Your task to perform on an android device: Open battery settings Image 0: 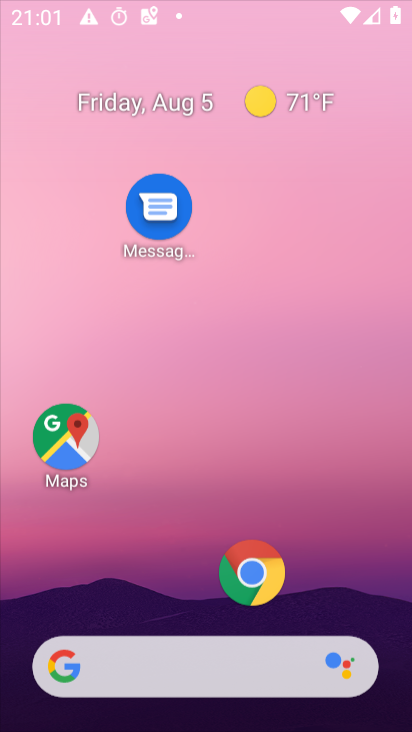
Step 0: press home button
Your task to perform on an android device: Open battery settings Image 1: 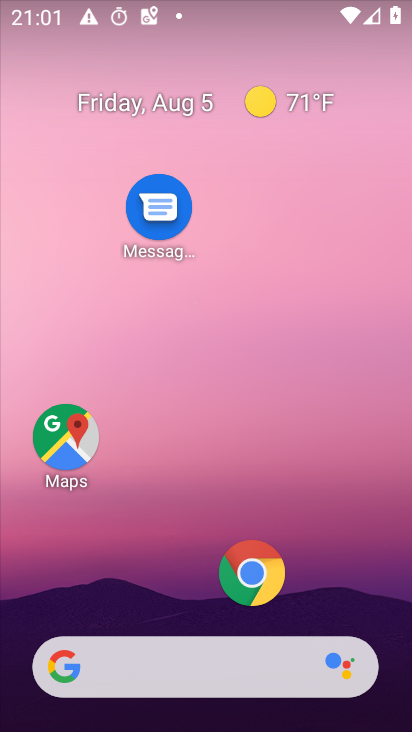
Step 1: drag from (189, 611) to (258, 48)
Your task to perform on an android device: Open battery settings Image 2: 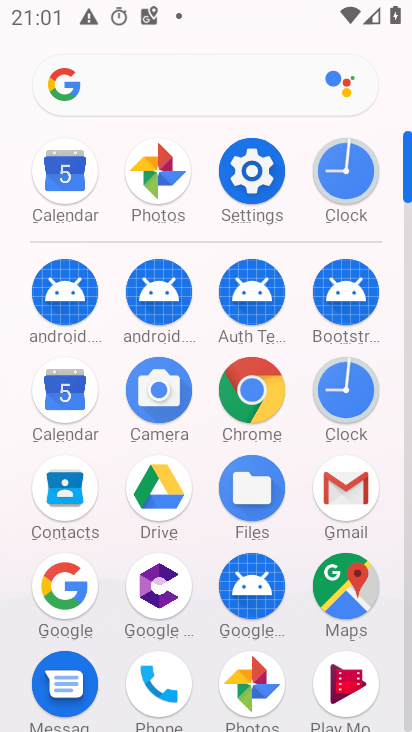
Step 2: click (247, 163)
Your task to perform on an android device: Open battery settings Image 3: 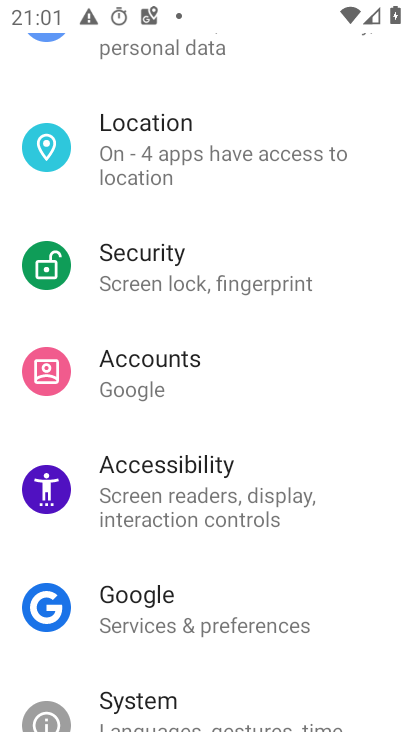
Step 3: drag from (211, 103) to (208, 579)
Your task to perform on an android device: Open battery settings Image 4: 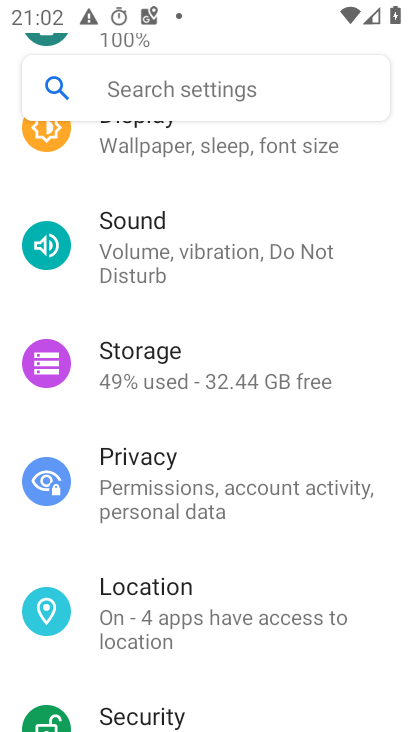
Step 4: drag from (208, 167) to (220, 591)
Your task to perform on an android device: Open battery settings Image 5: 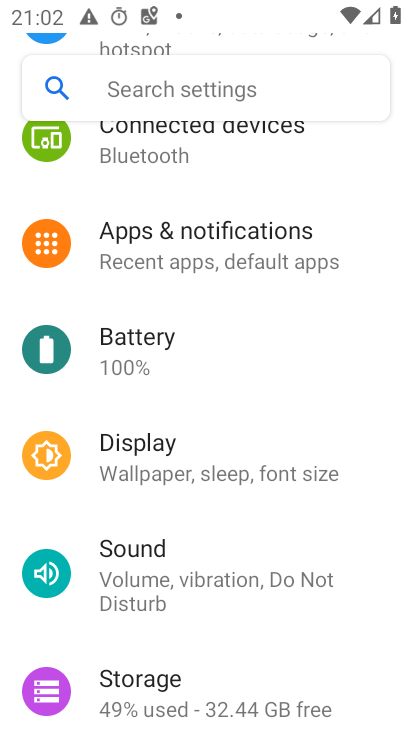
Step 5: click (186, 351)
Your task to perform on an android device: Open battery settings Image 6: 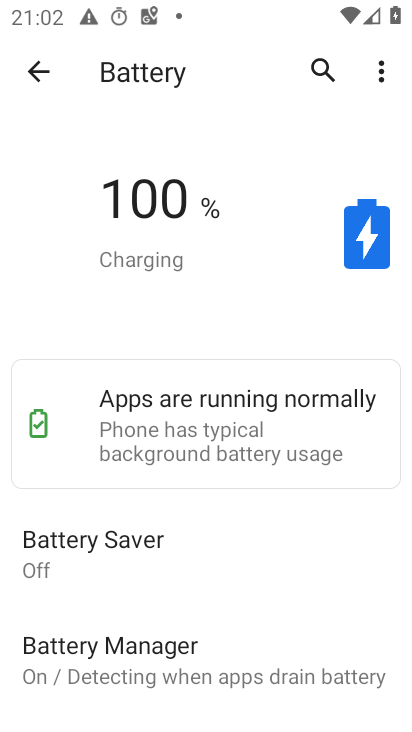
Step 6: task complete